Your task to perform on an android device: Open Reddit.com Image 0: 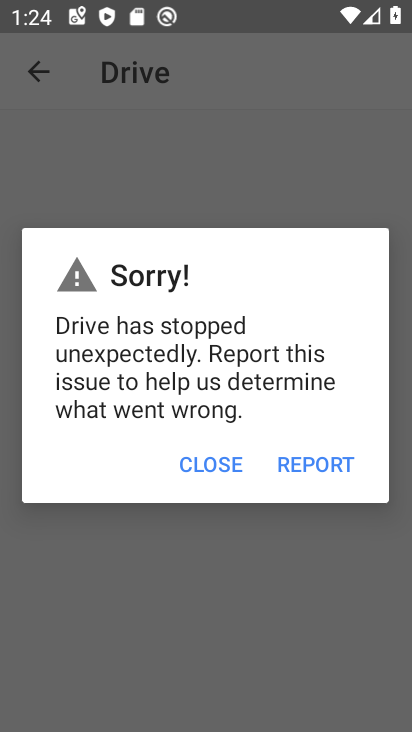
Step 0: press home button
Your task to perform on an android device: Open Reddit.com Image 1: 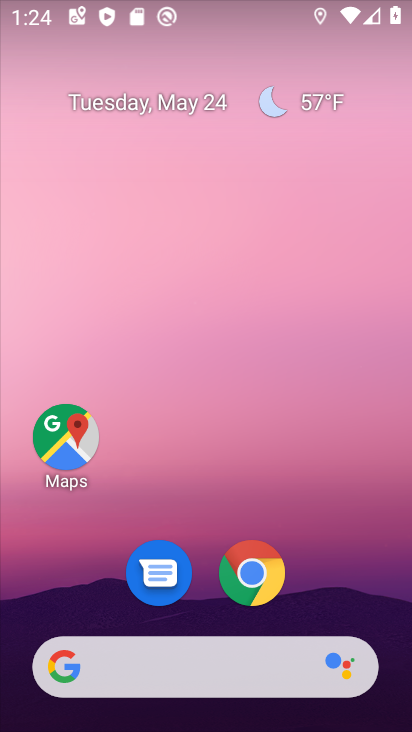
Step 1: drag from (391, 577) to (302, 91)
Your task to perform on an android device: Open Reddit.com Image 2: 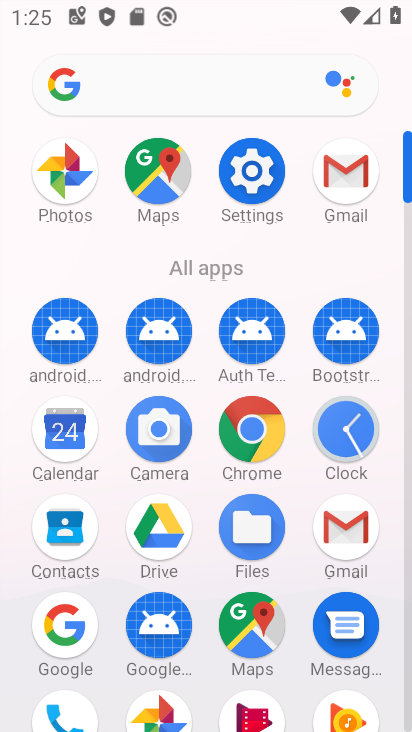
Step 2: click (255, 432)
Your task to perform on an android device: Open Reddit.com Image 3: 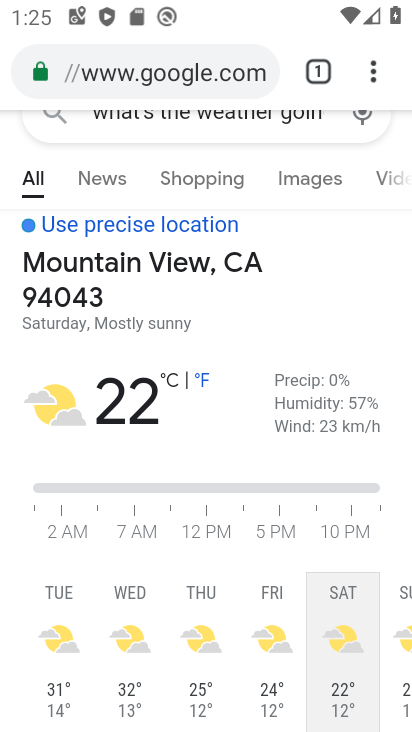
Step 3: click (161, 77)
Your task to perform on an android device: Open Reddit.com Image 4: 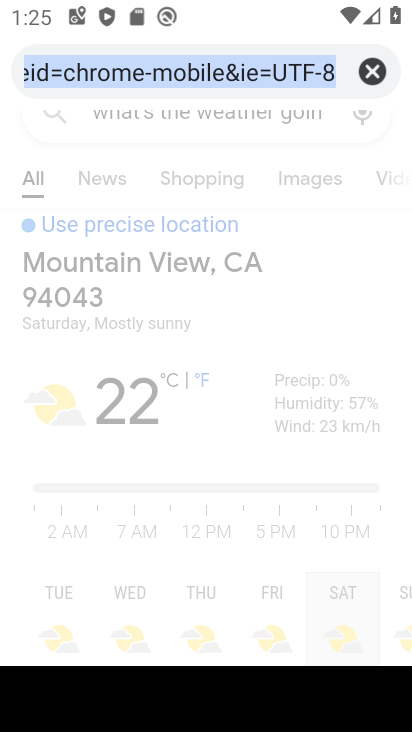
Step 4: click (376, 81)
Your task to perform on an android device: Open Reddit.com Image 5: 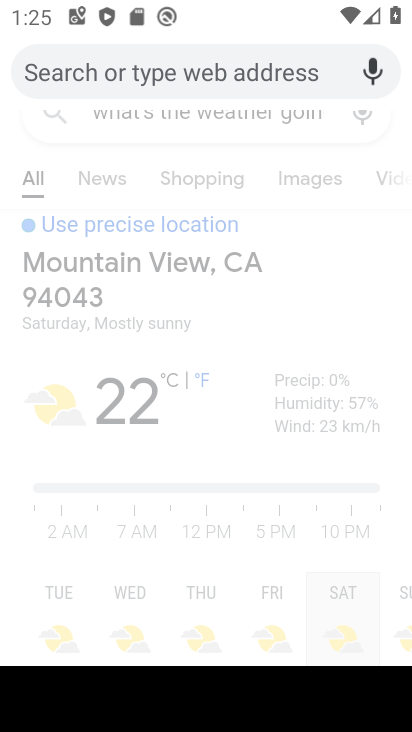
Step 5: type "reddit.com"
Your task to perform on an android device: Open Reddit.com Image 6: 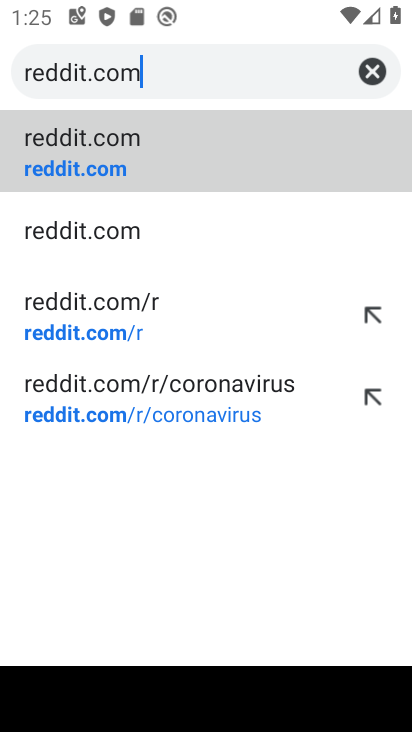
Step 6: click (206, 167)
Your task to perform on an android device: Open Reddit.com Image 7: 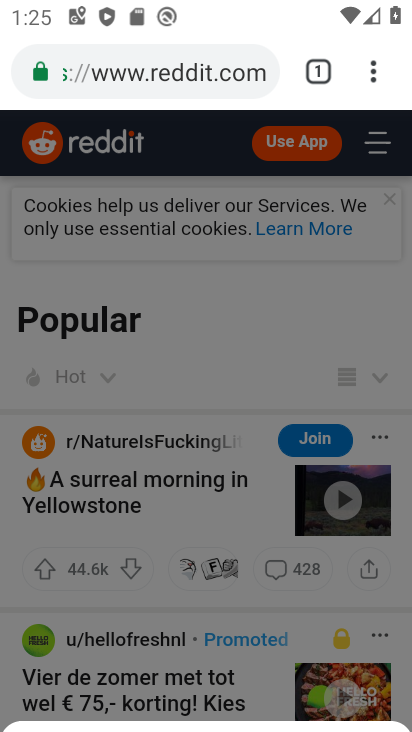
Step 7: task complete